Your task to perform on an android device: Open location settings Image 0: 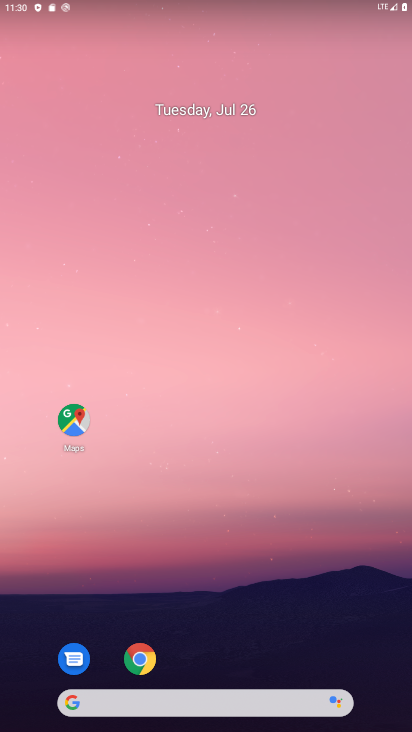
Step 0: drag from (50, 546) to (233, 113)
Your task to perform on an android device: Open location settings Image 1: 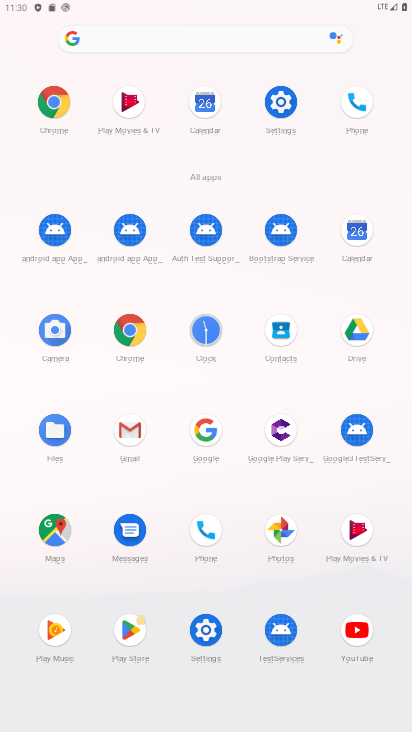
Step 1: click (269, 123)
Your task to perform on an android device: Open location settings Image 2: 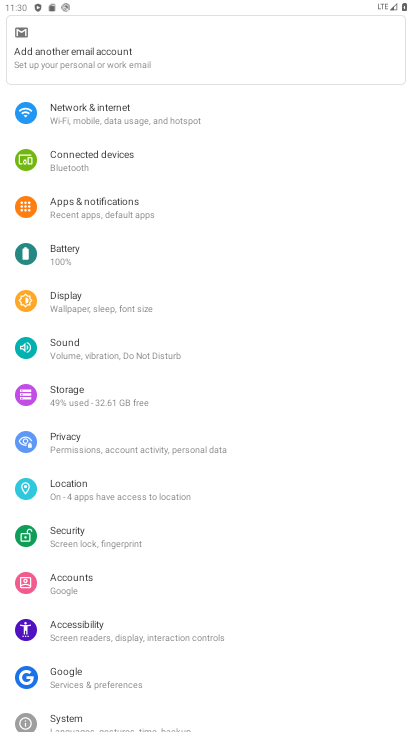
Step 2: click (184, 494)
Your task to perform on an android device: Open location settings Image 3: 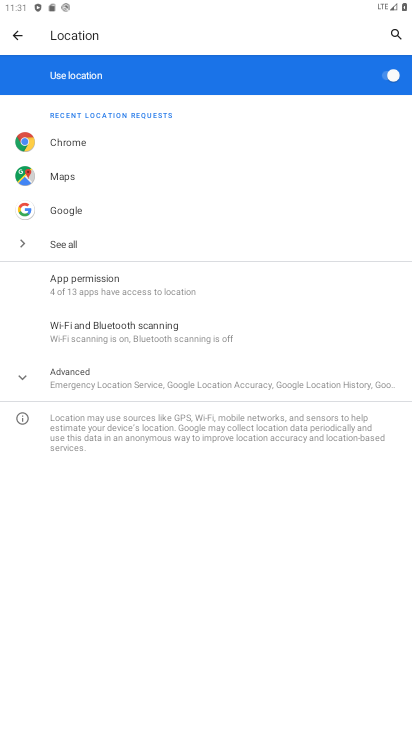
Step 3: task complete